Your task to perform on an android device: Open battery settings Image 0: 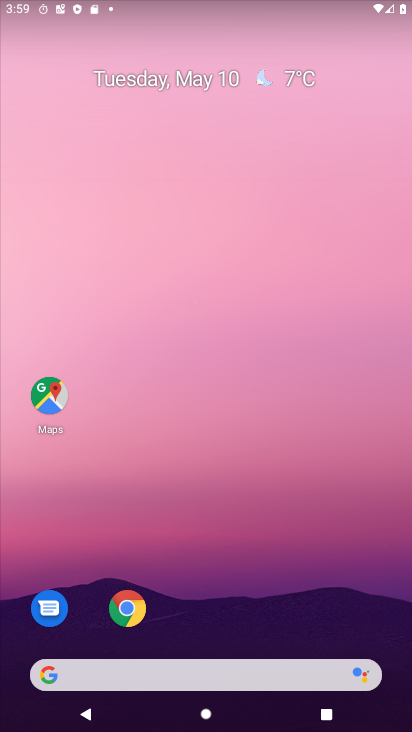
Step 0: drag from (301, 622) to (281, 10)
Your task to perform on an android device: Open battery settings Image 1: 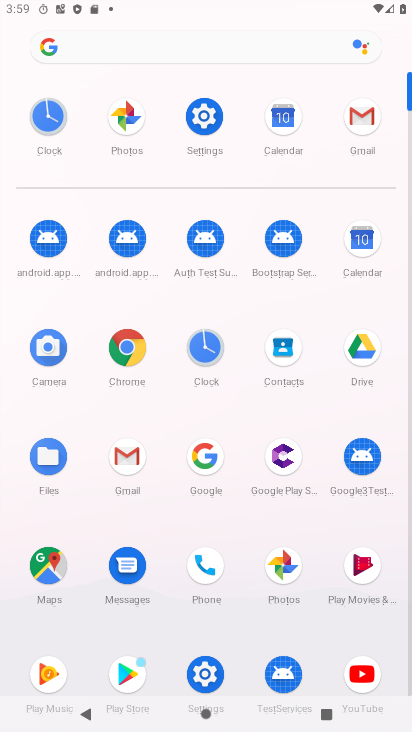
Step 1: click (199, 122)
Your task to perform on an android device: Open battery settings Image 2: 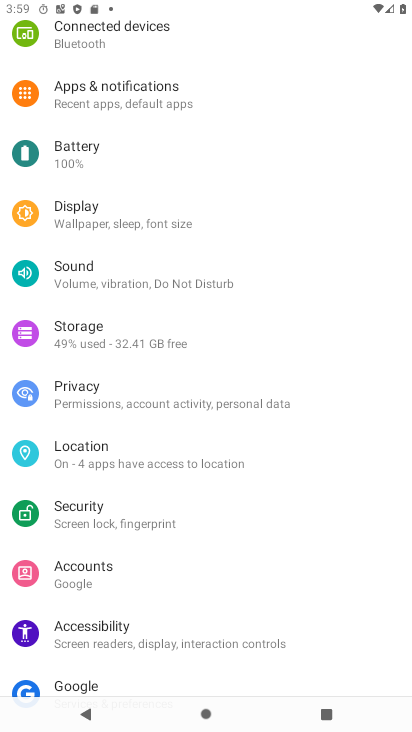
Step 2: click (65, 165)
Your task to perform on an android device: Open battery settings Image 3: 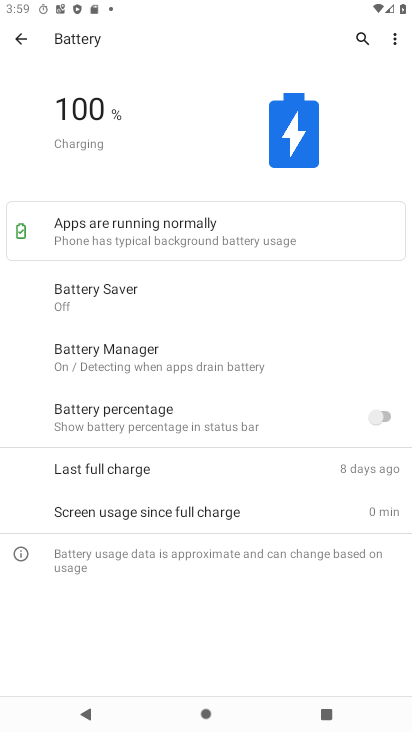
Step 3: task complete